Your task to perform on an android device: Open Youtube and go to "Your channel" Image 0: 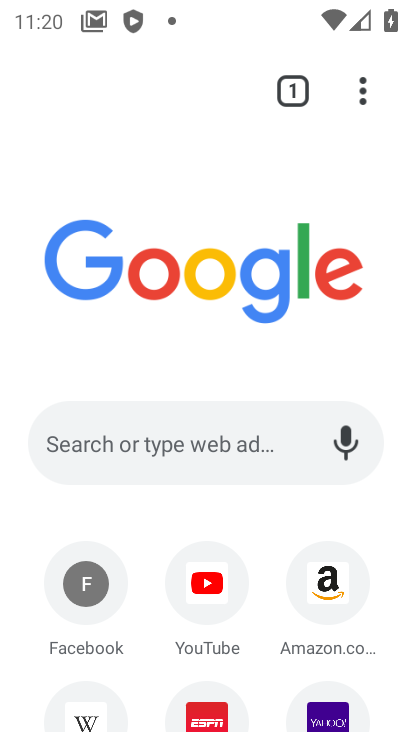
Step 0: press home button
Your task to perform on an android device: Open Youtube and go to "Your channel" Image 1: 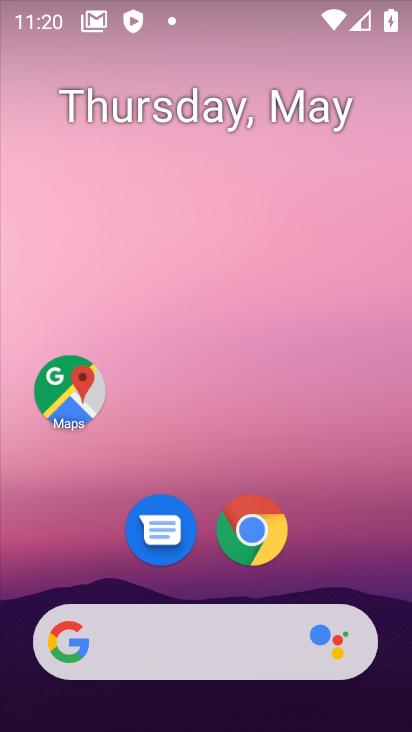
Step 1: drag from (386, 660) to (385, 253)
Your task to perform on an android device: Open Youtube and go to "Your channel" Image 2: 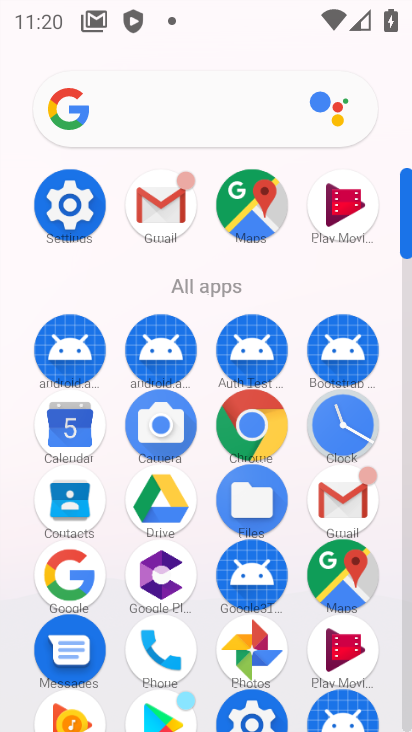
Step 2: drag from (298, 590) to (306, 325)
Your task to perform on an android device: Open Youtube and go to "Your channel" Image 3: 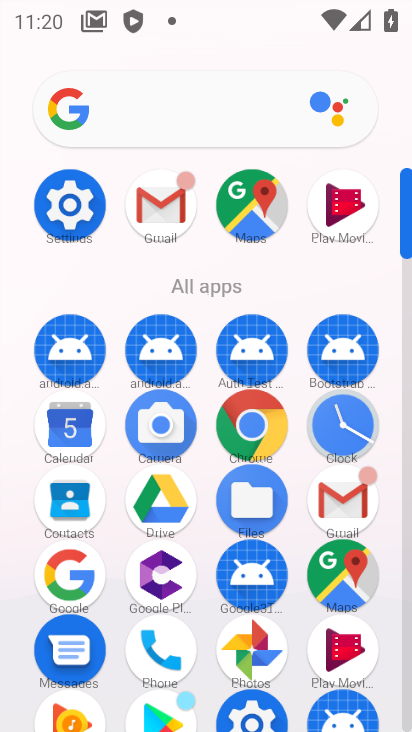
Step 3: drag from (395, 127) to (389, 58)
Your task to perform on an android device: Open Youtube and go to "Your channel" Image 4: 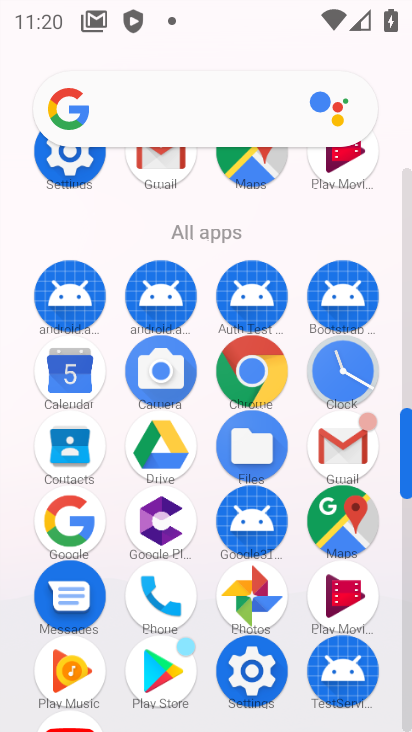
Step 4: drag from (407, 407) to (372, 224)
Your task to perform on an android device: Open Youtube and go to "Your channel" Image 5: 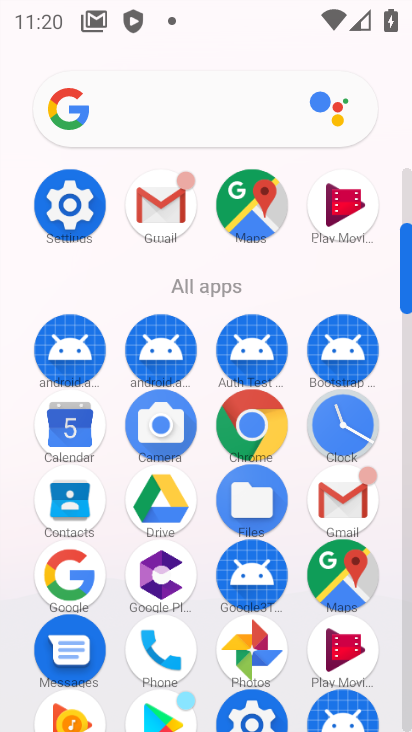
Step 5: drag from (404, 215) to (405, 134)
Your task to perform on an android device: Open Youtube and go to "Your channel" Image 6: 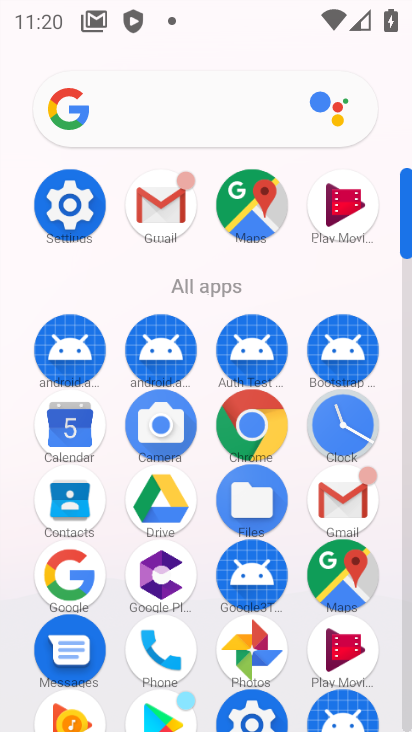
Step 6: drag from (406, 177) to (405, 70)
Your task to perform on an android device: Open Youtube and go to "Your channel" Image 7: 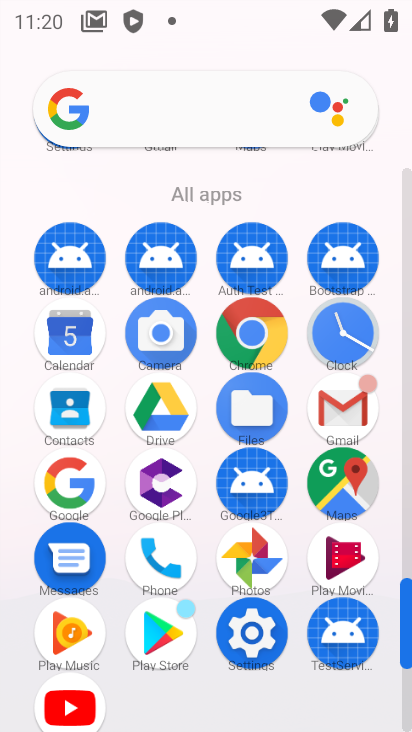
Step 7: click (56, 694)
Your task to perform on an android device: Open Youtube and go to "Your channel" Image 8: 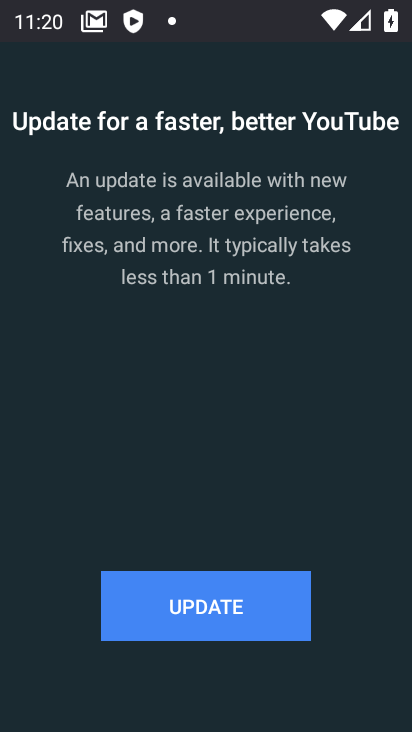
Step 8: click (251, 620)
Your task to perform on an android device: Open Youtube and go to "Your channel" Image 9: 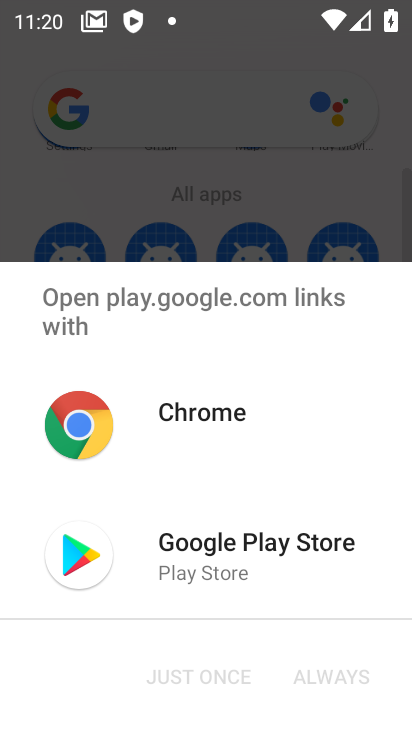
Step 9: click (169, 555)
Your task to perform on an android device: Open Youtube and go to "Your channel" Image 10: 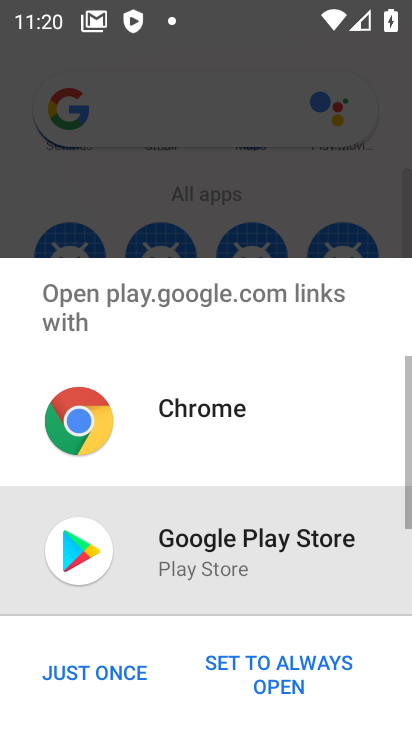
Step 10: click (104, 674)
Your task to perform on an android device: Open Youtube and go to "Your channel" Image 11: 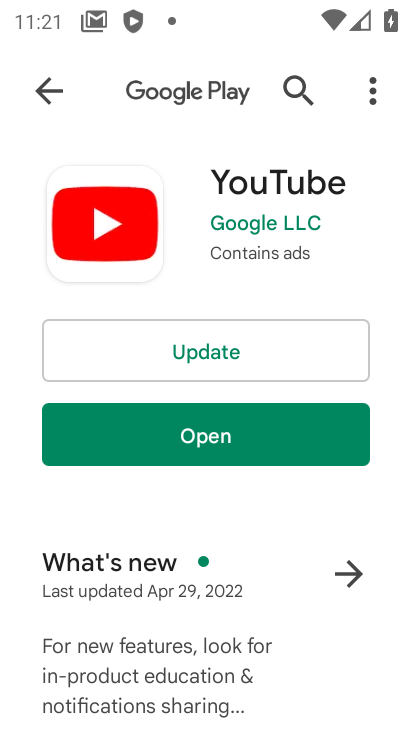
Step 11: click (202, 440)
Your task to perform on an android device: Open Youtube and go to "Your channel" Image 12: 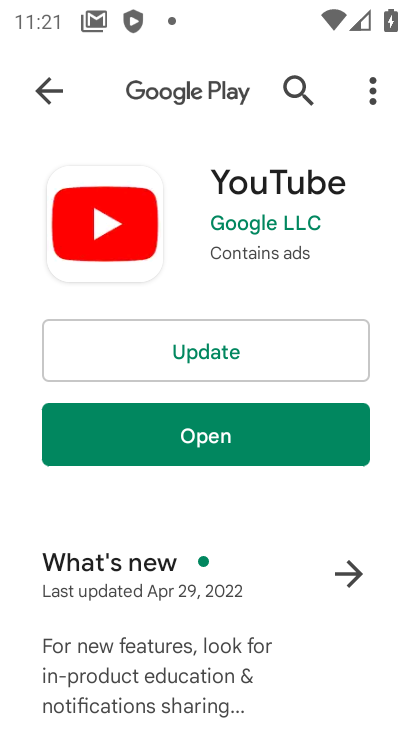
Step 12: click (225, 356)
Your task to perform on an android device: Open Youtube and go to "Your channel" Image 13: 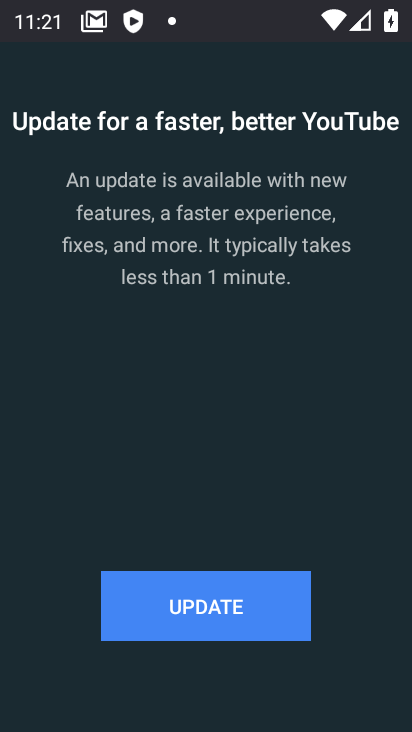
Step 13: click (163, 617)
Your task to perform on an android device: Open Youtube and go to "Your channel" Image 14: 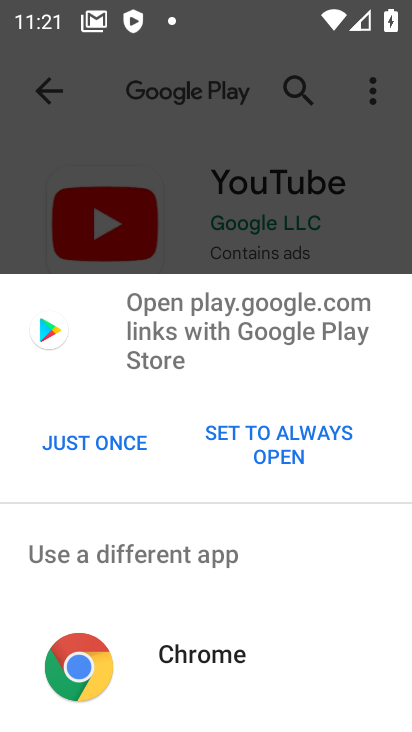
Step 14: drag from (140, 435) to (180, 435)
Your task to perform on an android device: Open Youtube and go to "Your channel" Image 15: 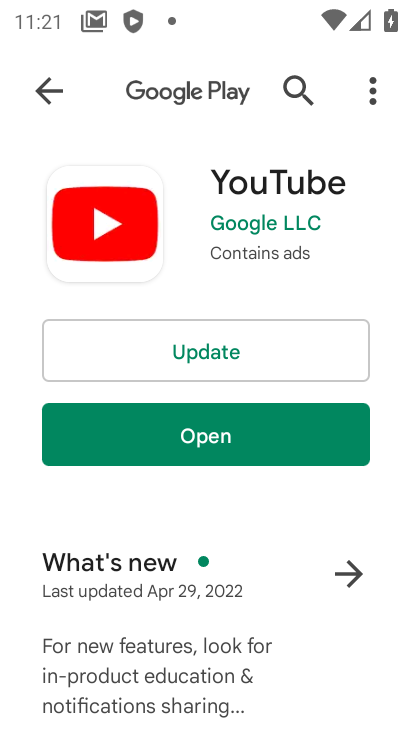
Step 15: click (240, 353)
Your task to perform on an android device: Open Youtube and go to "Your channel" Image 16: 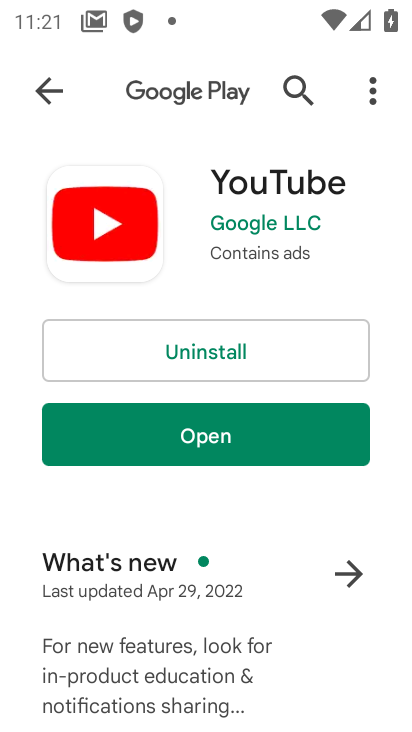
Step 16: click (176, 440)
Your task to perform on an android device: Open Youtube and go to "Your channel" Image 17: 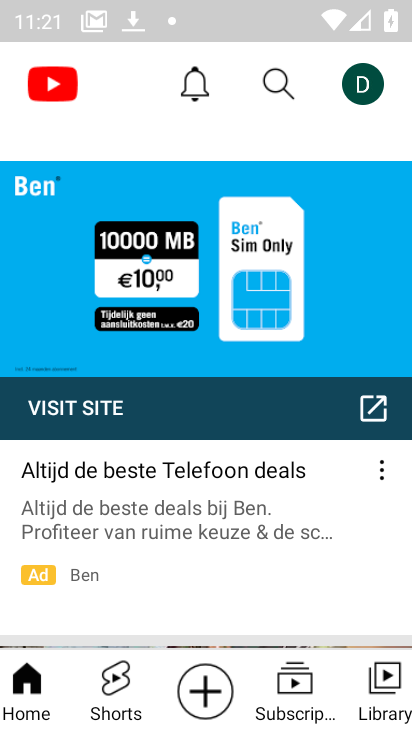
Step 17: click (372, 80)
Your task to perform on an android device: Open Youtube and go to "Your channel" Image 18: 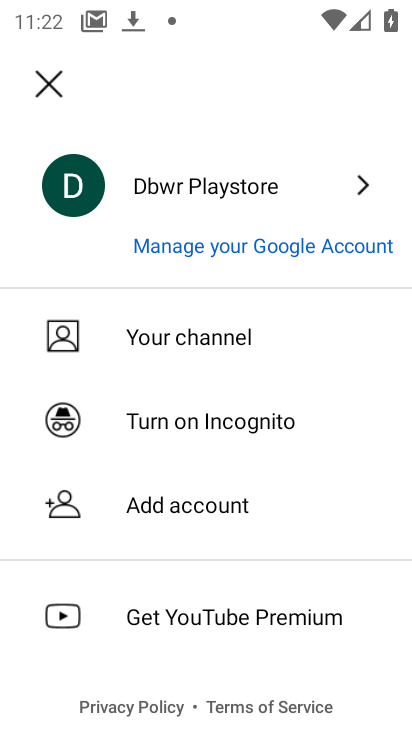
Step 18: click (189, 341)
Your task to perform on an android device: Open Youtube and go to "Your channel" Image 19: 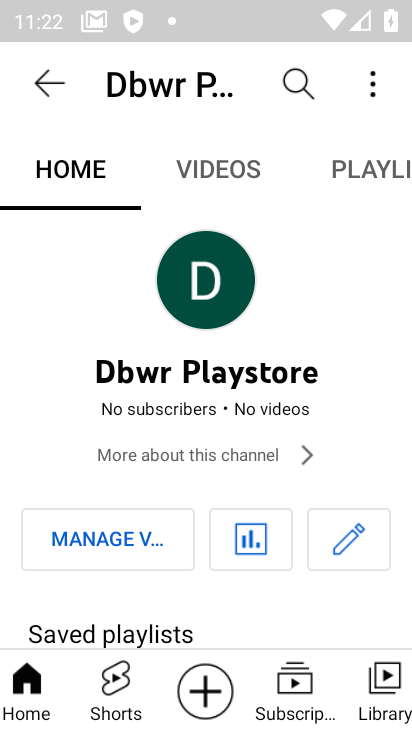
Step 19: task complete